Your task to perform on an android device: Open settings on Google Maps Image 0: 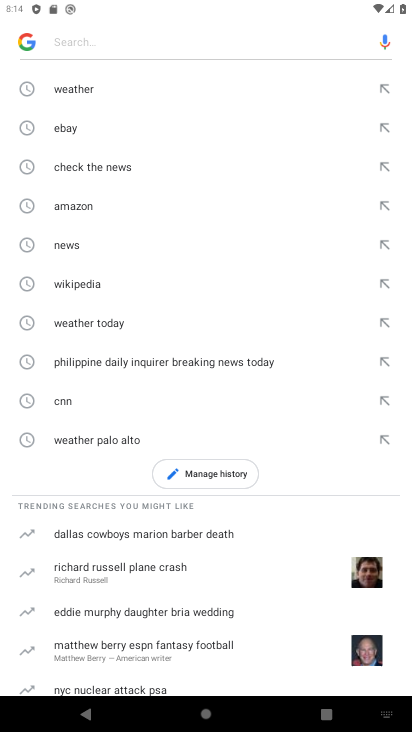
Step 0: press home button
Your task to perform on an android device: Open settings on Google Maps Image 1: 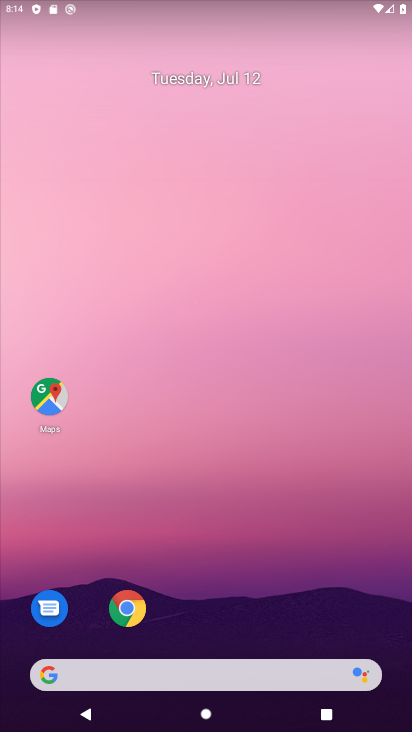
Step 1: click (56, 396)
Your task to perform on an android device: Open settings on Google Maps Image 2: 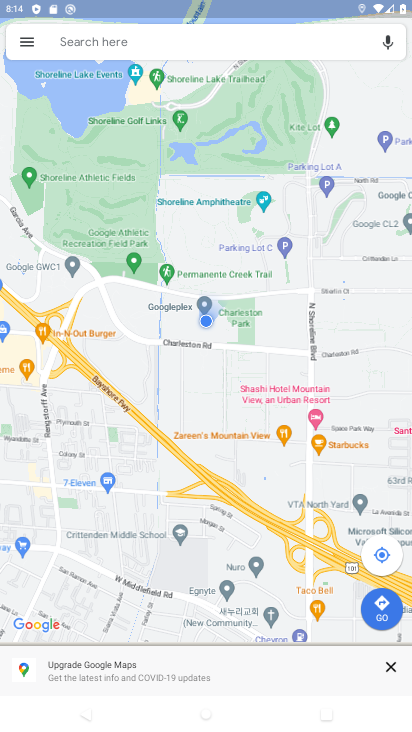
Step 2: click (21, 40)
Your task to perform on an android device: Open settings on Google Maps Image 3: 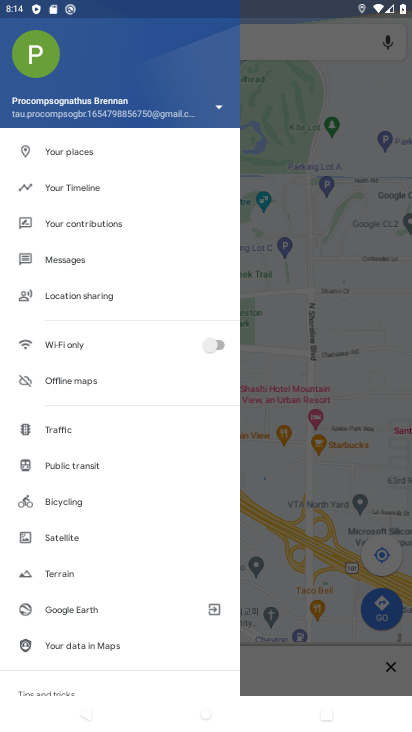
Step 3: drag from (26, 592) to (24, 271)
Your task to perform on an android device: Open settings on Google Maps Image 4: 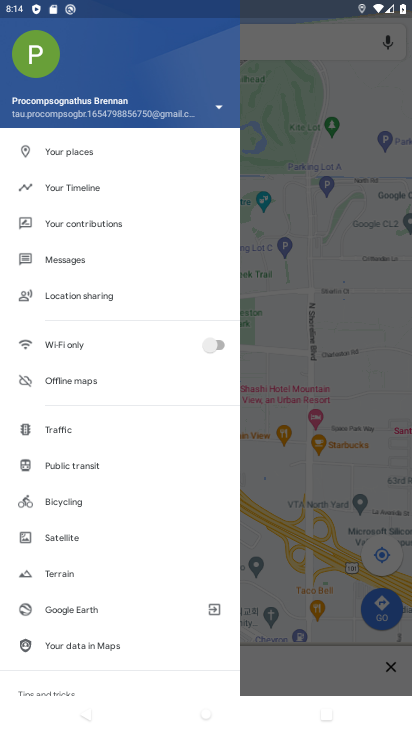
Step 4: drag from (77, 596) to (72, 136)
Your task to perform on an android device: Open settings on Google Maps Image 5: 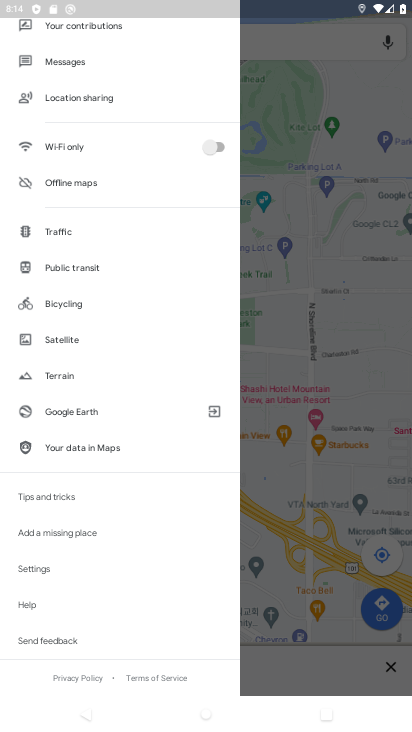
Step 5: click (78, 567)
Your task to perform on an android device: Open settings on Google Maps Image 6: 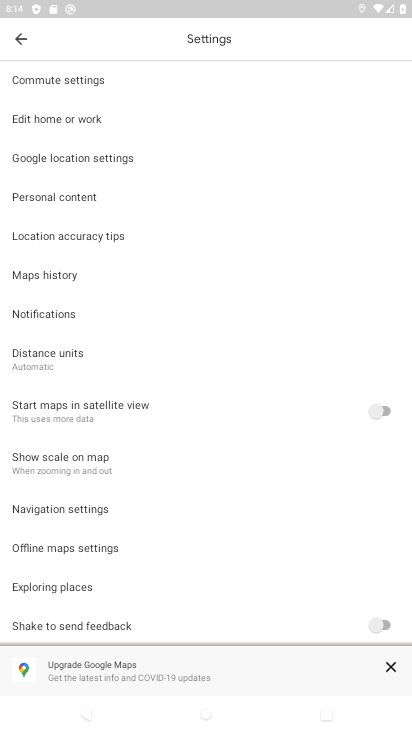
Step 6: task complete